Your task to perform on an android device: What is the recent news? Image 0: 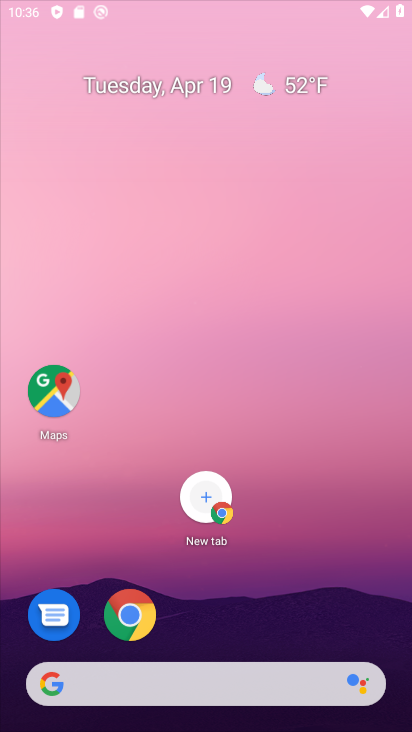
Step 0: drag from (260, 622) to (230, 13)
Your task to perform on an android device: What is the recent news? Image 1: 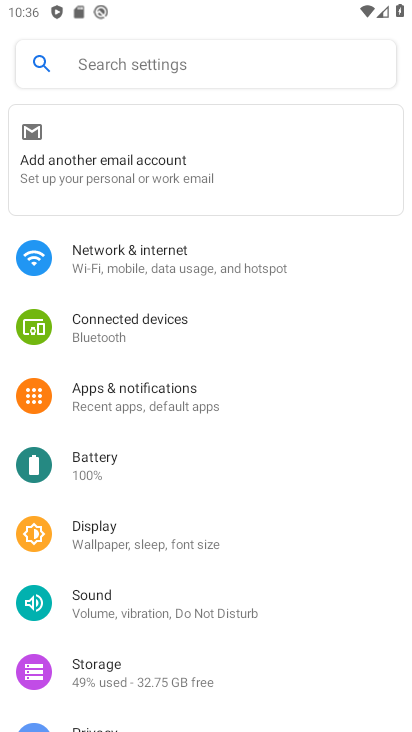
Step 1: press home button
Your task to perform on an android device: What is the recent news? Image 2: 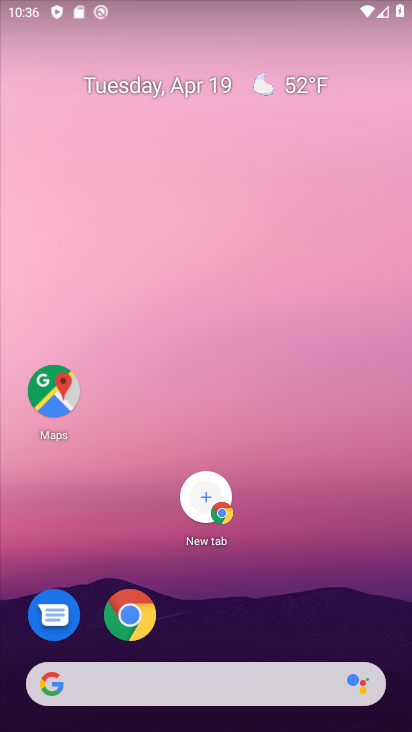
Step 2: click (166, 609)
Your task to perform on an android device: What is the recent news? Image 3: 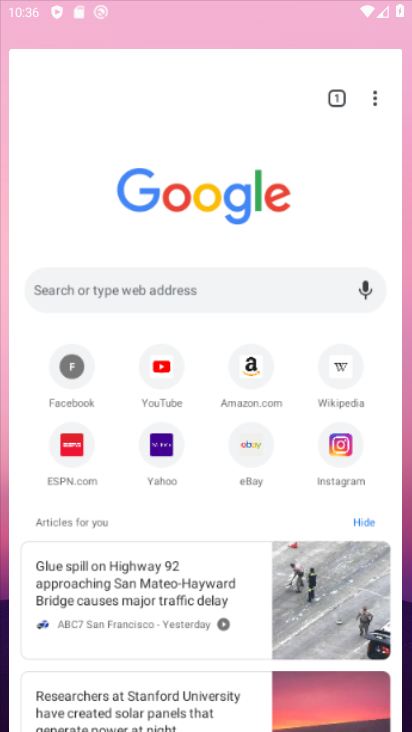
Step 3: click (211, 667)
Your task to perform on an android device: What is the recent news? Image 4: 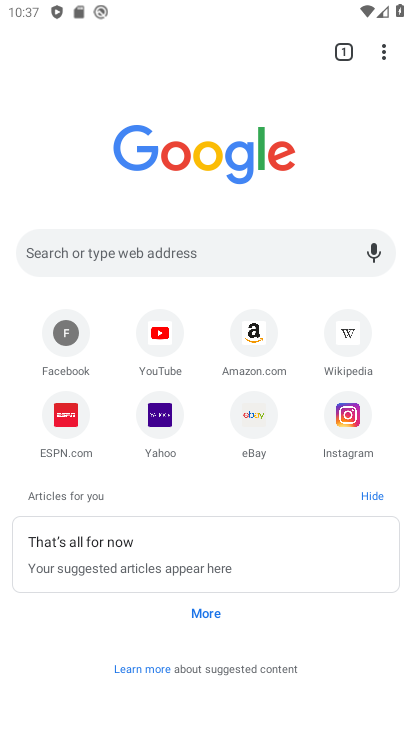
Step 4: click (143, 132)
Your task to perform on an android device: What is the recent news? Image 5: 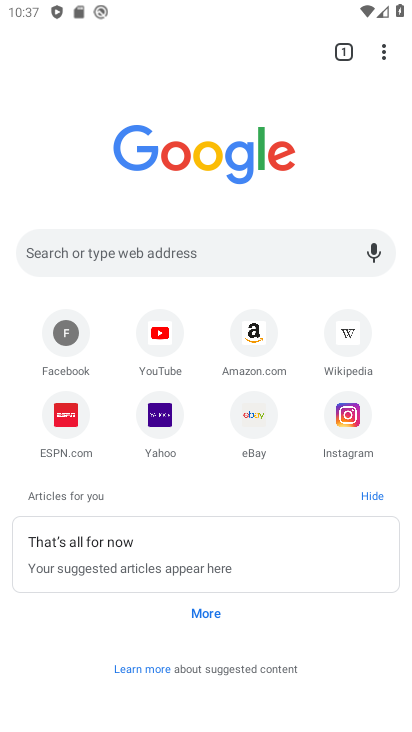
Step 5: press back button
Your task to perform on an android device: What is the recent news? Image 6: 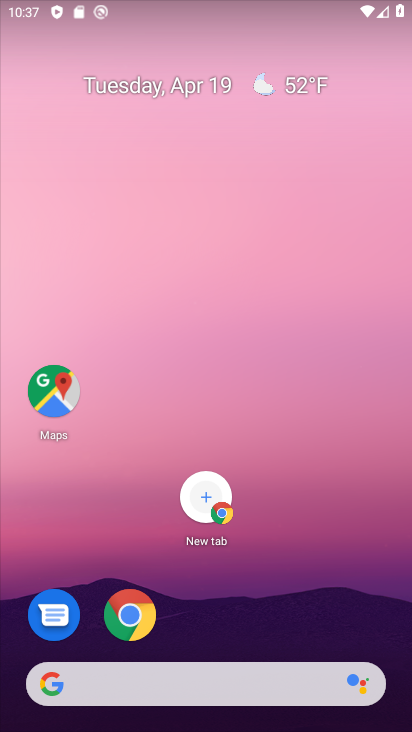
Step 6: click (160, 673)
Your task to perform on an android device: What is the recent news? Image 7: 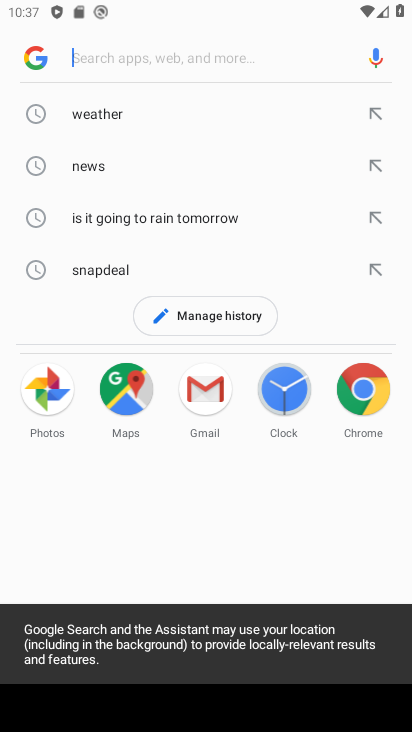
Step 7: click (42, 57)
Your task to perform on an android device: What is the recent news? Image 8: 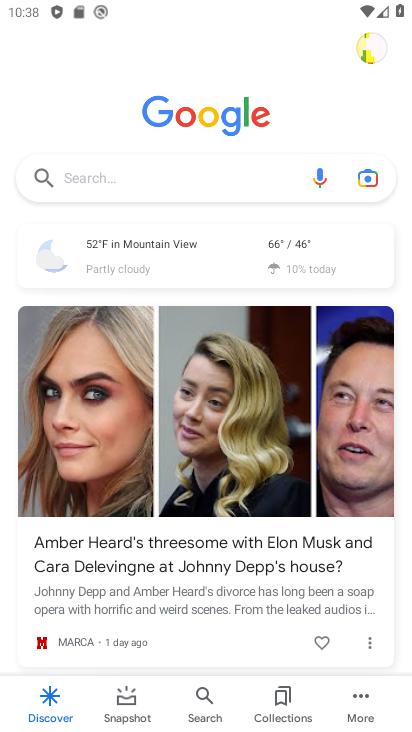
Step 8: task complete